Your task to perform on an android device: turn on sleep mode Image 0: 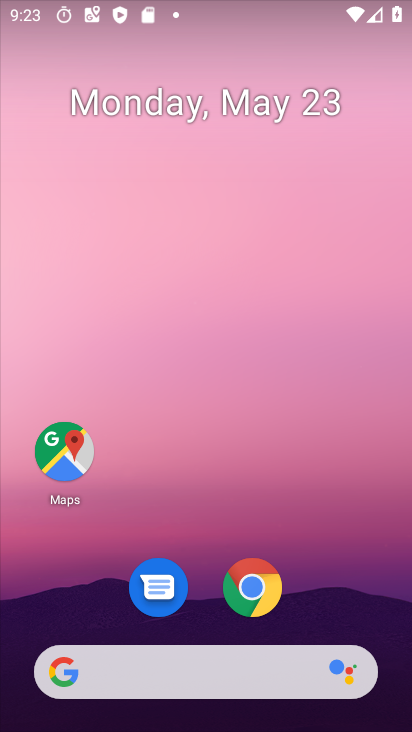
Step 0: drag from (342, 614) to (307, 324)
Your task to perform on an android device: turn on sleep mode Image 1: 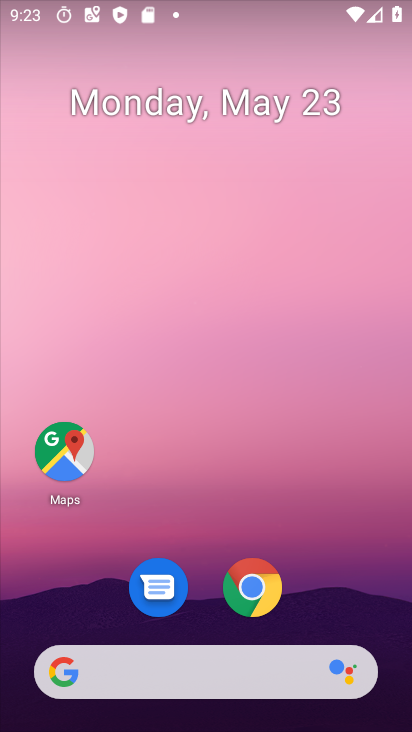
Step 1: drag from (352, 606) to (298, 171)
Your task to perform on an android device: turn on sleep mode Image 2: 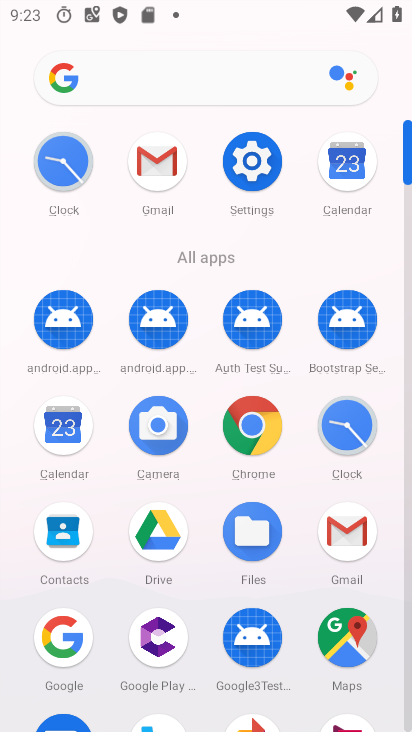
Step 2: click (256, 140)
Your task to perform on an android device: turn on sleep mode Image 3: 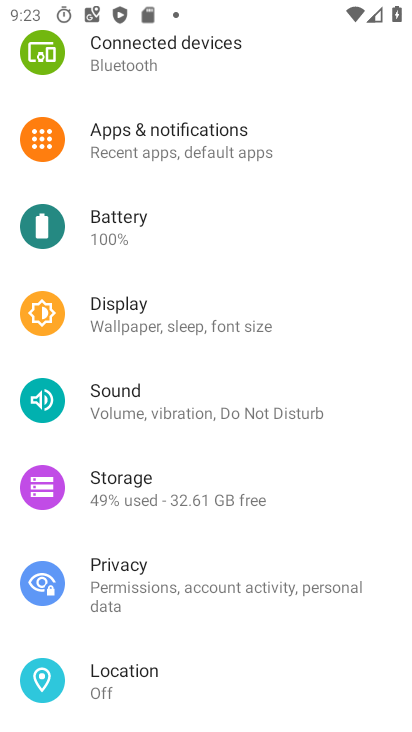
Step 3: task complete